Your task to perform on an android device: open a new tab in the chrome app Image 0: 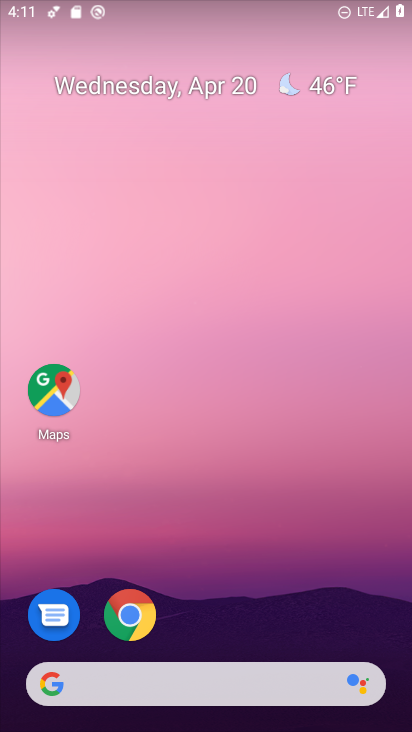
Step 0: click (136, 618)
Your task to perform on an android device: open a new tab in the chrome app Image 1: 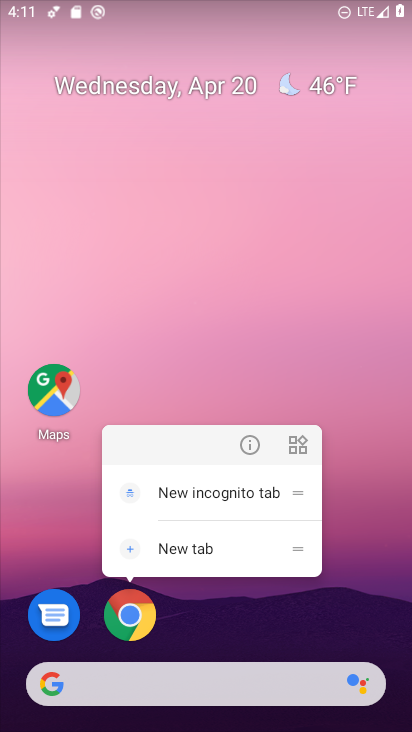
Step 1: click (133, 618)
Your task to perform on an android device: open a new tab in the chrome app Image 2: 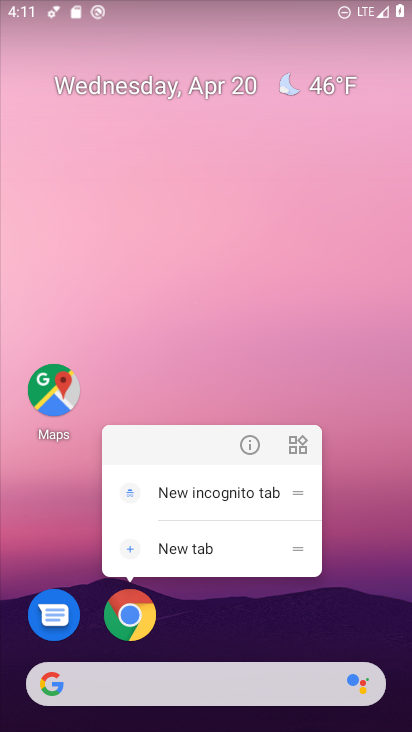
Step 2: click (134, 616)
Your task to perform on an android device: open a new tab in the chrome app Image 3: 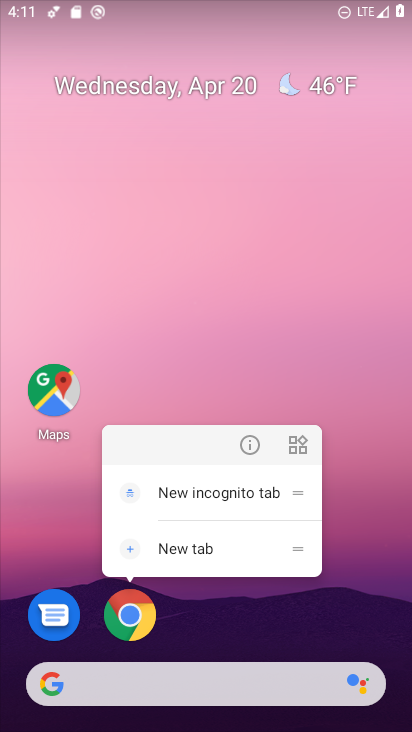
Step 3: click (134, 616)
Your task to perform on an android device: open a new tab in the chrome app Image 4: 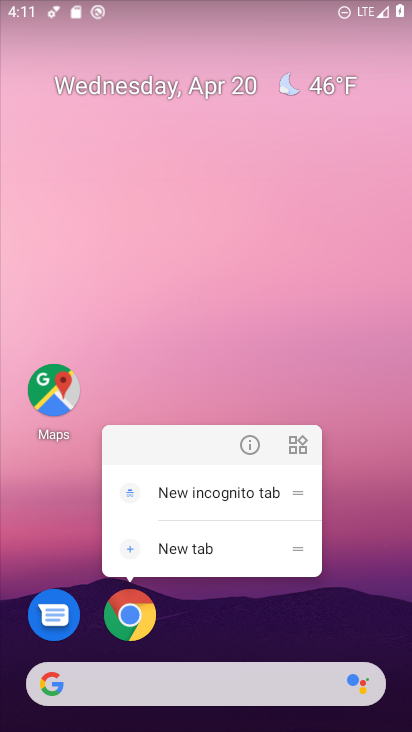
Step 4: click (129, 617)
Your task to perform on an android device: open a new tab in the chrome app Image 5: 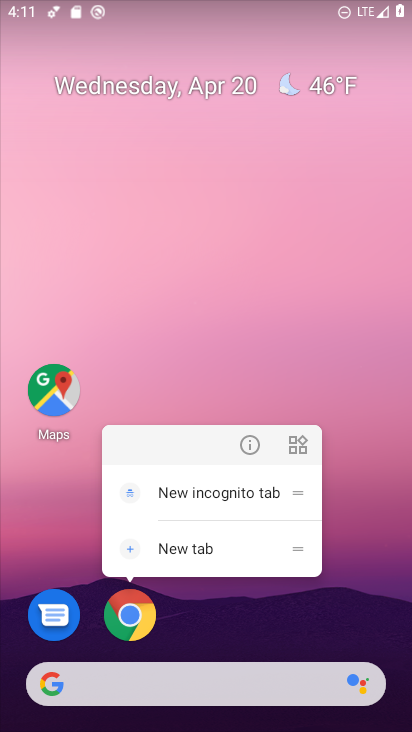
Step 5: click (138, 631)
Your task to perform on an android device: open a new tab in the chrome app Image 6: 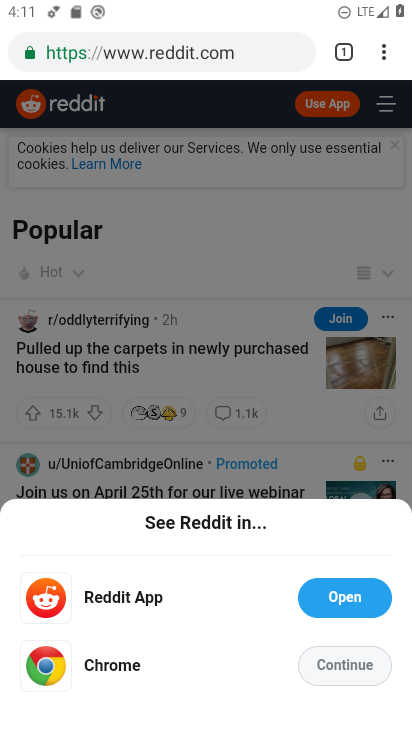
Step 6: click (184, 310)
Your task to perform on an android device: open a new tab in the chrome app Image 7: 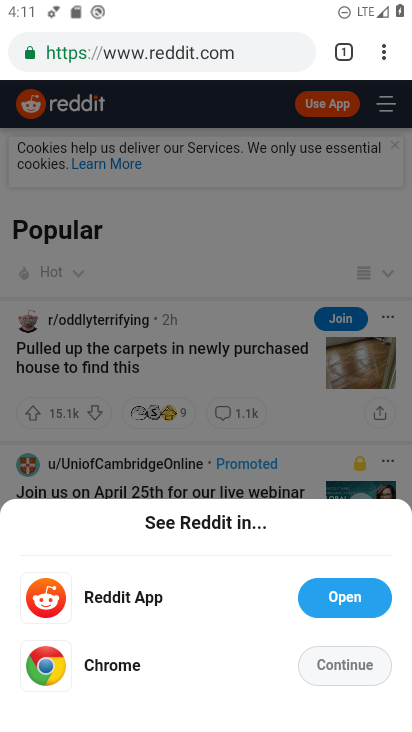
Step 7: click (342, 49)
Your task to perform on an android device: open a new tab in the chrome app Image 8: 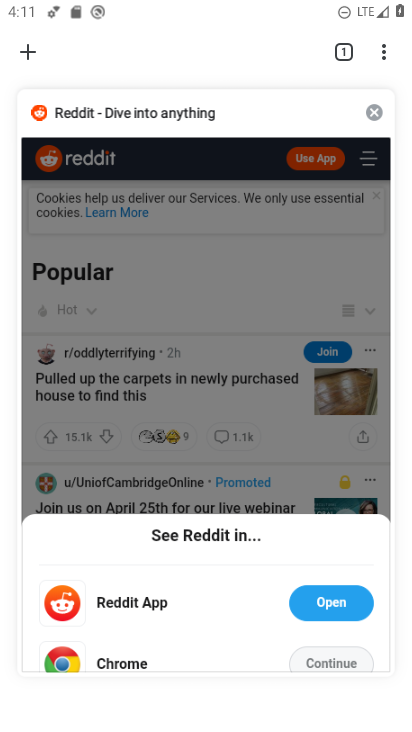
Step 8: click (31, 55)
Your task to perform on an android device: open a new tab in the chrome app Image 9: 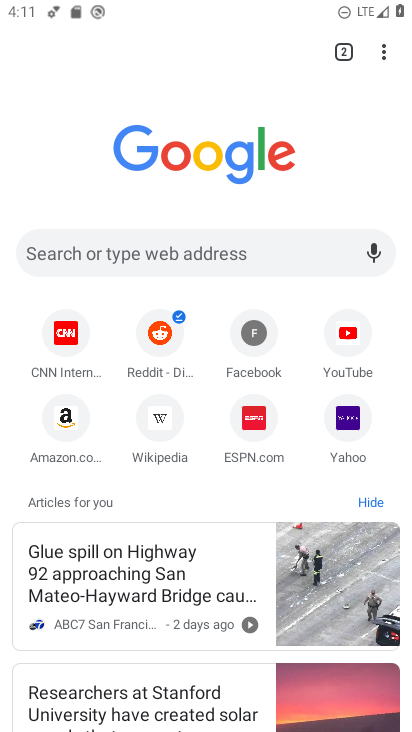
Step 9: task complete